Your task to perform on an android device: What's on my calendar tomorrow? Image 0: 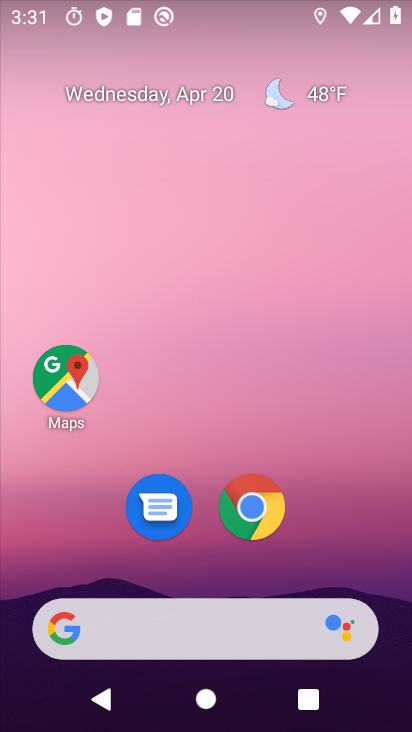
Step 0: drag from (160, 609) to (188, 230)
Your task to perform on an android device: What's on my calendar tomorrow? Image 1: 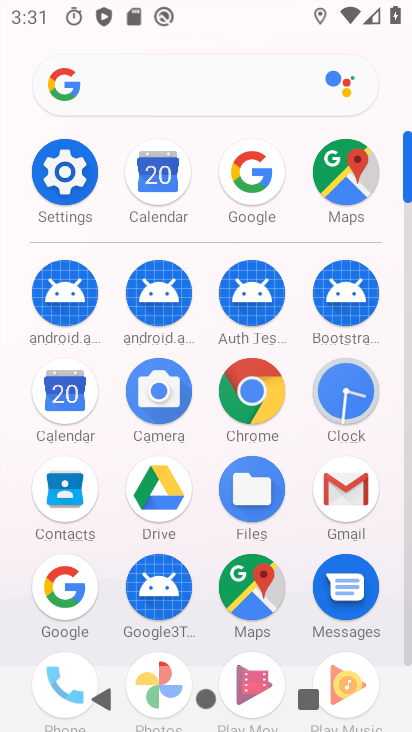
Step 1: click (78, 416)
Your task to perform on an android device: What's on my calendar tomorrow? Image 2: 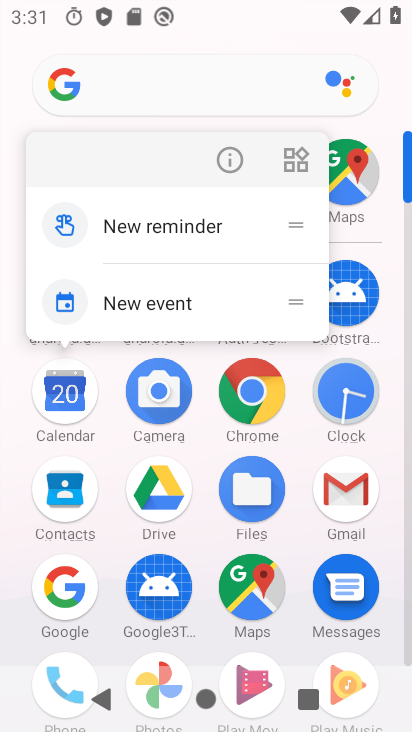
Step 2: click (69, 407)
Your task to perform on an android device: What's on my calendar tomorrow? Image 3: 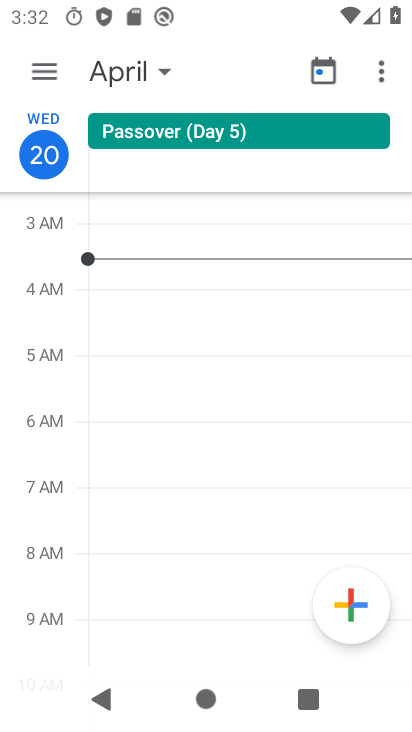
Step 3: task complete